Your task to perform on an android device: Go to privacy settings Image 0: 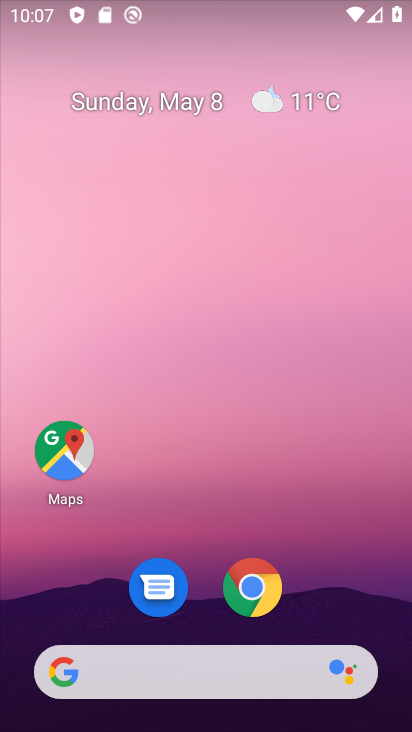
Step 0: drag from (164, 646) to (165, 157)
Your task to perform on an android device: Go to privacy settings Image 1: 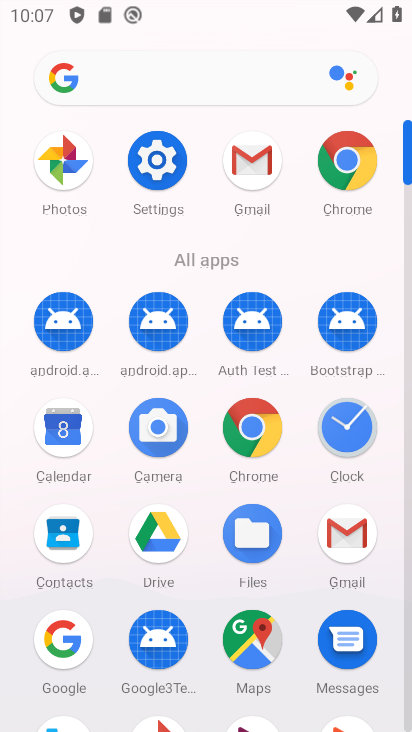
Step 1: click (161, 152)
Your task to perform on an android device: Go to privacy settings Image 2: 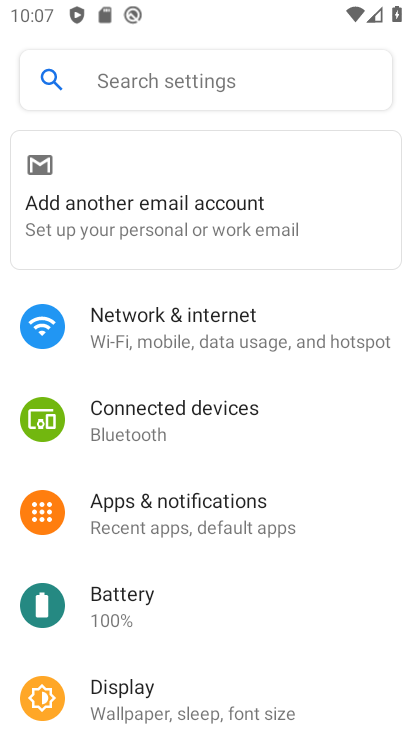
Step 2: drag from (211, 626) to (209, 165)
Your task to perform on an android device: Go to privacy settings Image 3: 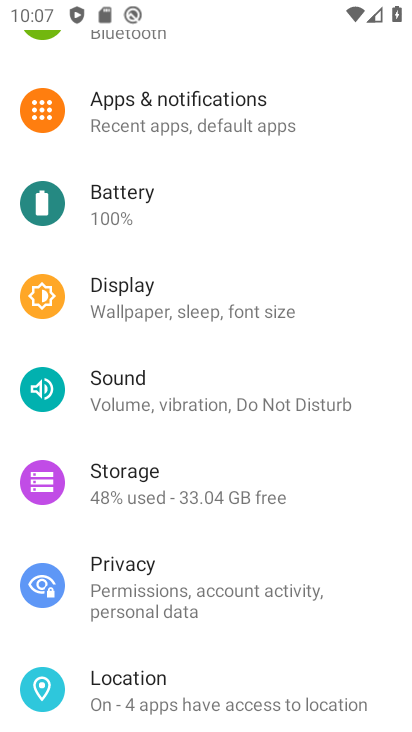
Step 3: click (212, 609)
Your task to perform on an android device: Go to privacy settings Image 4: 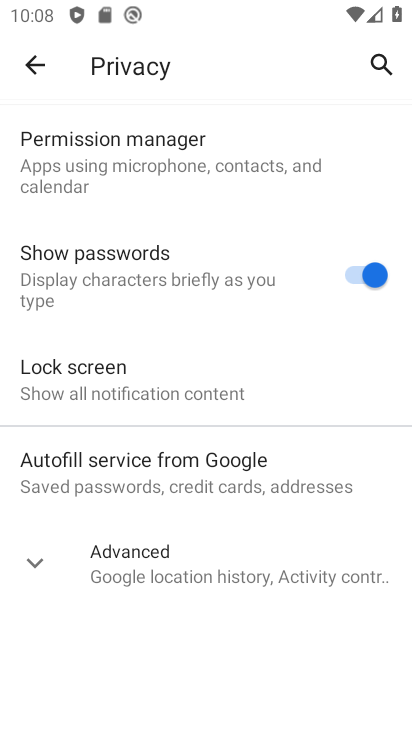
Step 4: task complete